Your task to perform on an android device: Go to accessibility settings Image 0: 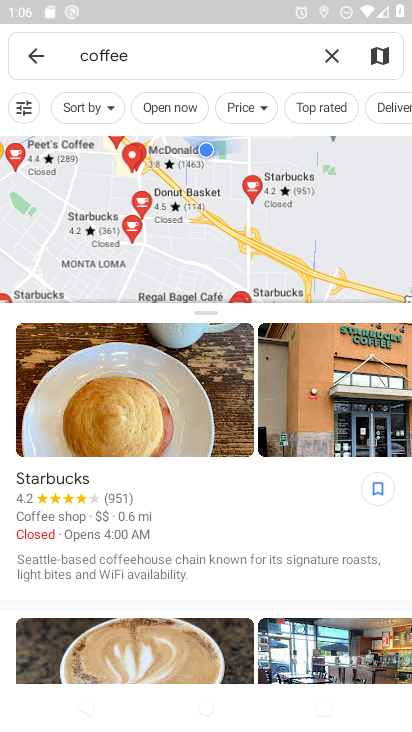
Step 0: press home button
Your task to perform on an android device: Go to accessibility settings Image 1: 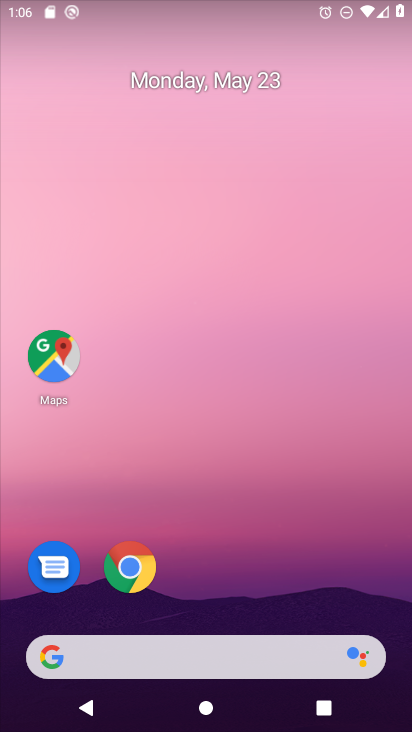
Step 1: drag from (178, 626) to (283, 61)
Your task to perform on an android device: Go to accessibility settings Image 2: 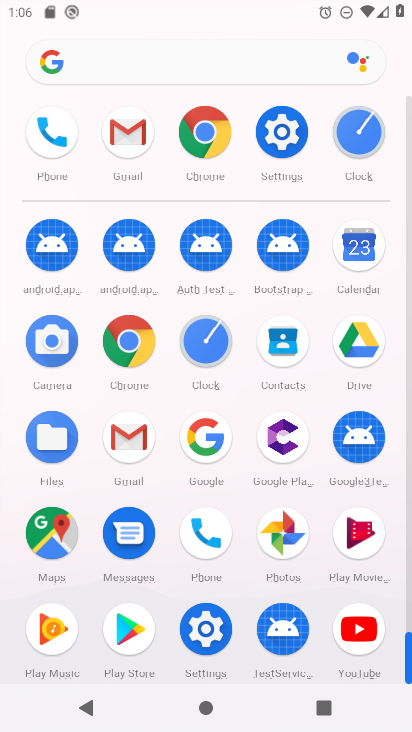
Step 2: click (273, 109)
Your task to perform on an android device: Go to accessibility settings Image 3: 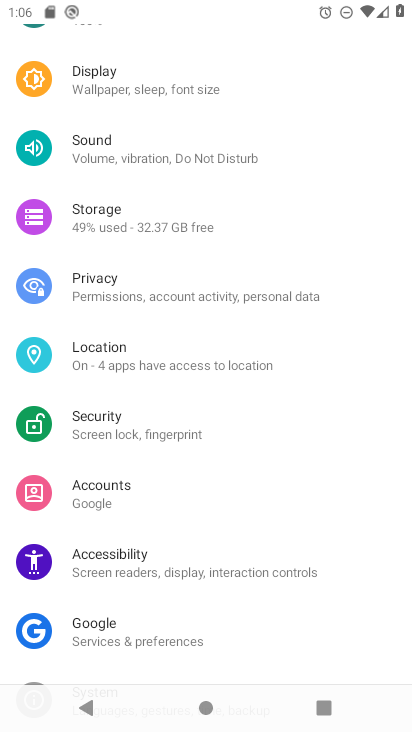
Step 3: click (102, 565)
Your task to perform on an android device: Go to accessibility settings Image 4: 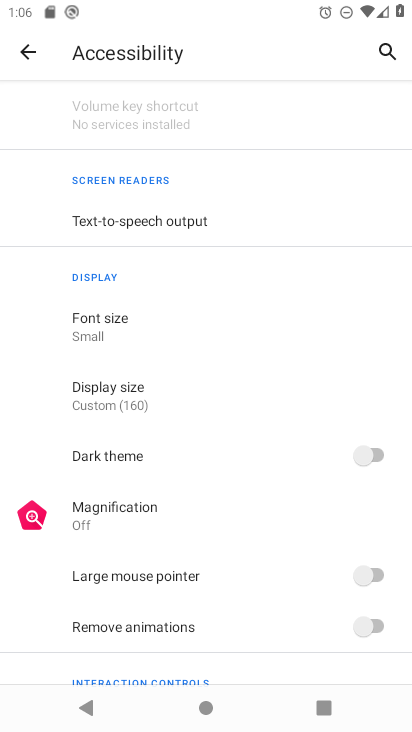
Step 4: task complete